Your task to perform on an android device: Open calendar and show me the first week of next month Image 0: 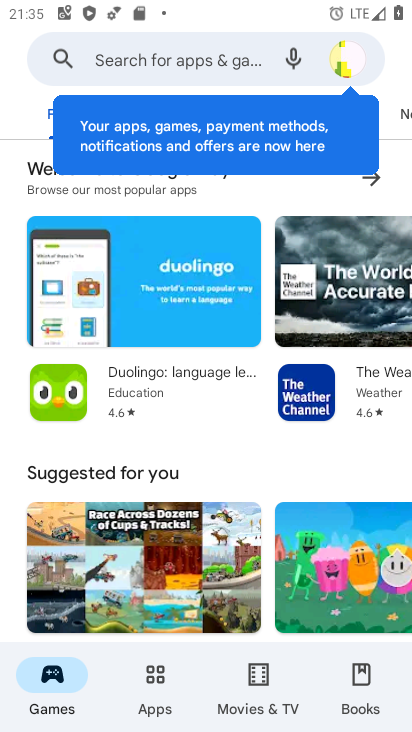
Step 0: press back button
Your task to perform on an android device: Open calendar and show me the first week of next month Image 1: 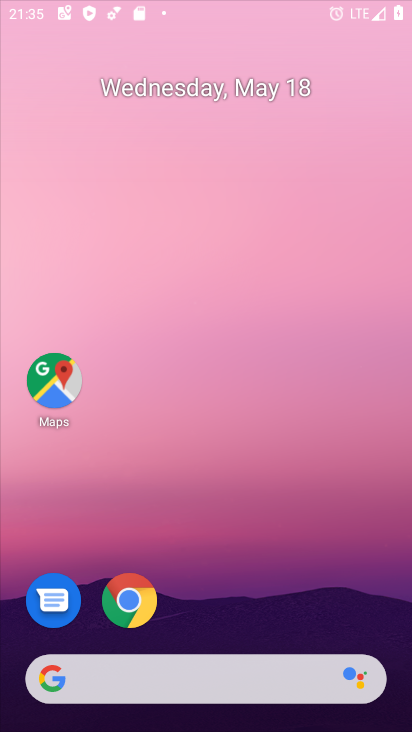
Step 1: press back button
Your task to perform on an android device: Open calendar and show me the first week of next month Image 2: 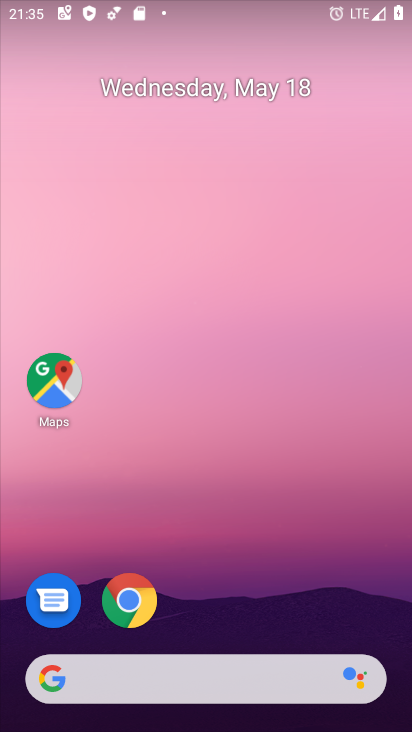
Step 2: drag from (261, 617) to (314, 10)
Your task to perform on an android device: Open calendar and show me the first week of next month Image 3: 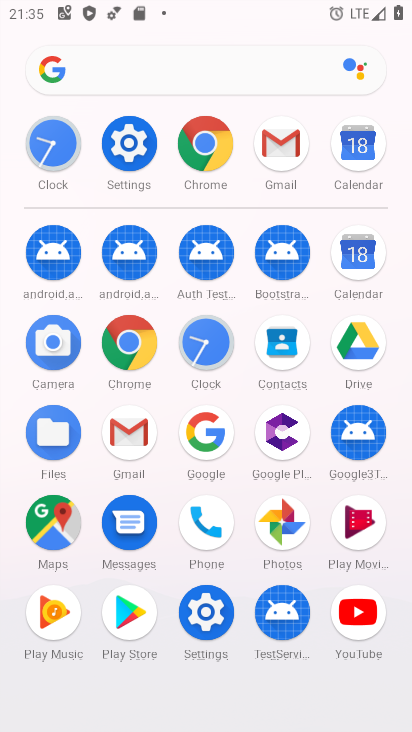
Step 3: click (352, 267)
Your task to perform on an android device: Open calendar and show me the first week of next month Image 4: 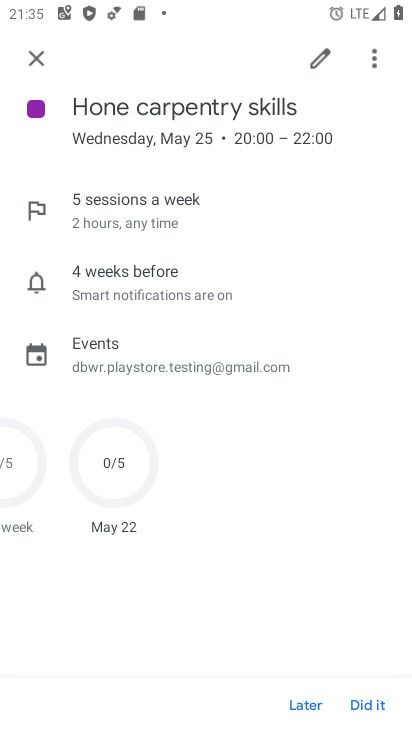
Step 4: click (39, 58)
Your task to perform on an android device: Open calendar and show me the first week of next month Image 5: 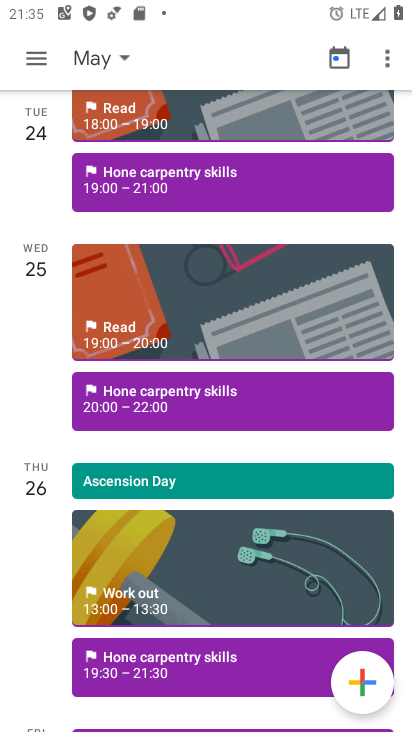
Step 5: click (104, 64)
Your task to perform on an android device: Open calendar and show me the first week of next month Image 6: 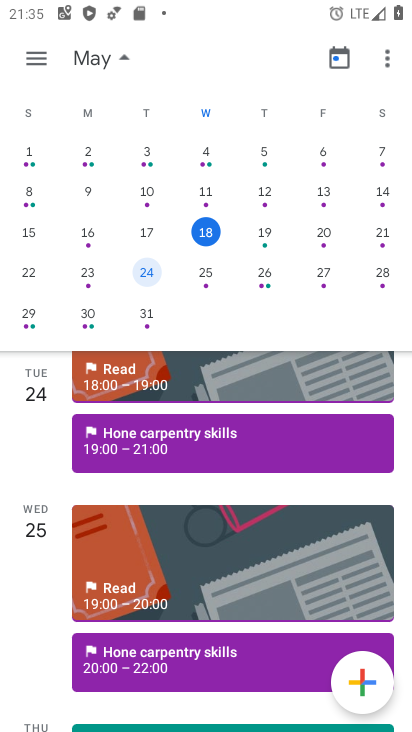
Step 6: drag from (387, 218) to (157, 168)
Your task to perform on an android device: Open calendar and show me the first week of next month Image 7: 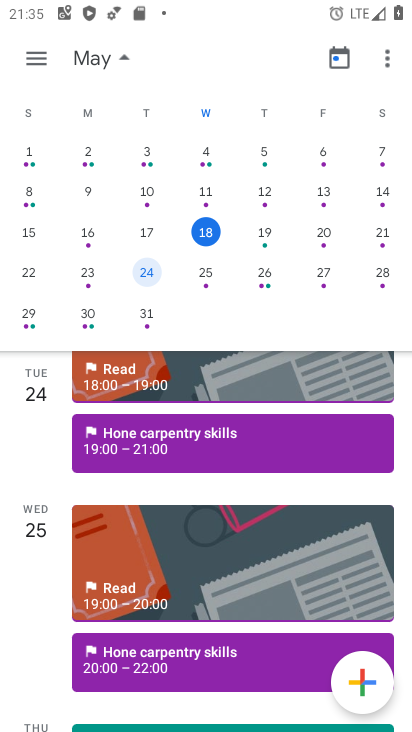
Step 7: click (87, 151)
Your task to perform on an android device: Open calendar and show me the first week of next month Image 8: 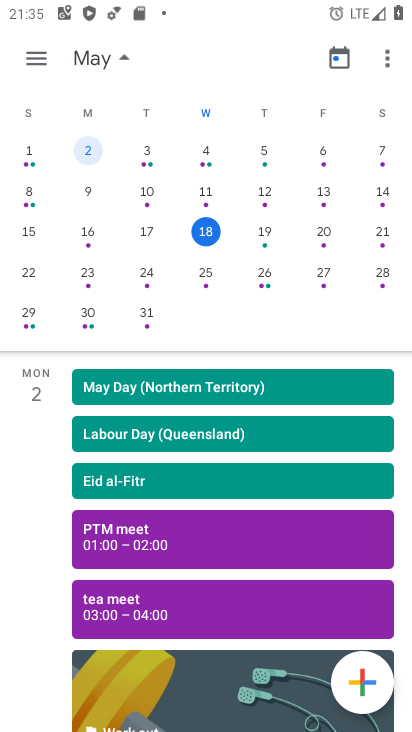
Step 8: task complete